Your task to perform on an android device: Open calendar and show me the second week of next month Image 0: 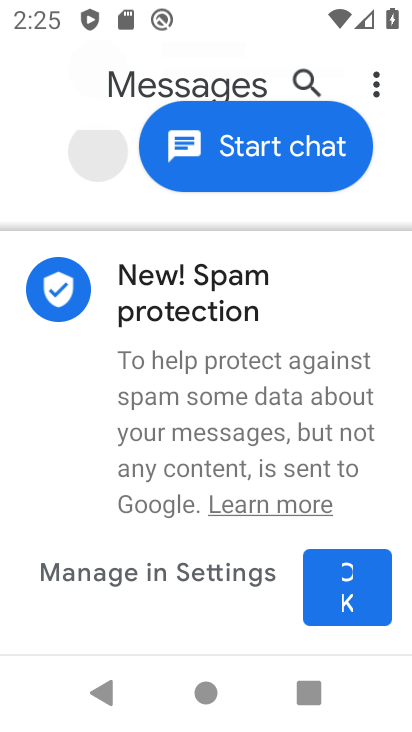
Step 0: press home button
Your task to perform on an android device: Open calendar and show me the second week of next month Image 1: 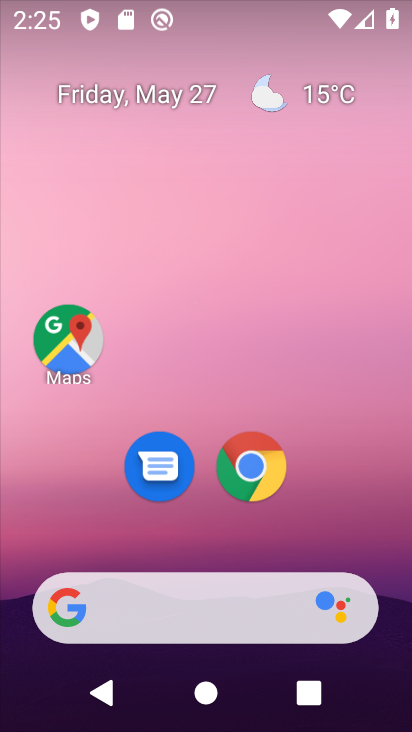
Step 1: drag from (362, 497) to (349, 121)
Your task to perform on an android device: Open calendar and show me the second week of next month Image 2: 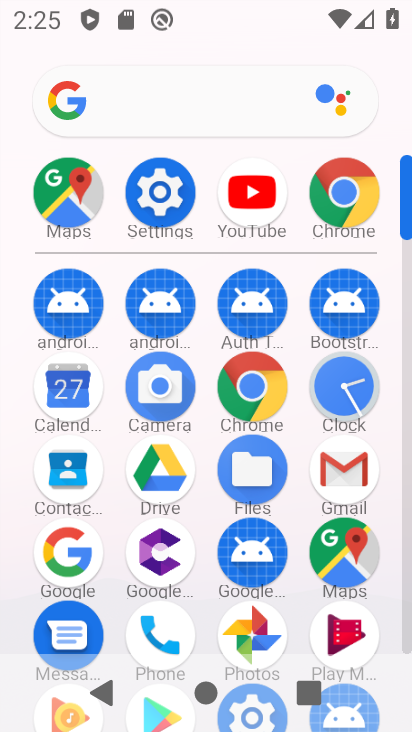
Step 2: click (72, 399)
Your task to perform on an android device: Open calendar and show me the second week of next month Image 3: 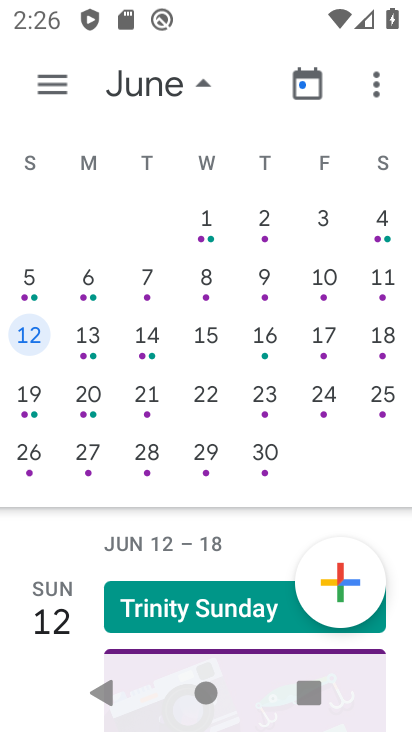
Step 3: click (327, 310)
Your task to perform on an android device: Open calendar and show me the second week of next month Image 4: 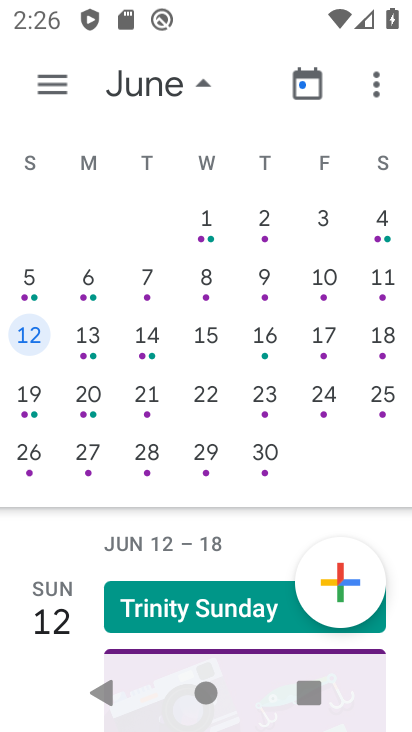
Step 4: click (41, 285)
Your task to perform on an android device: Open calendar and show me the second week of next month Image 5: 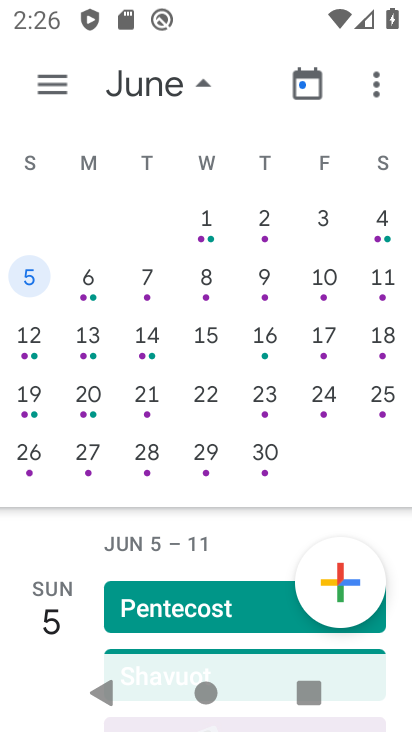
Step 5: task complete